Your task to perform on an android device: allow cookies in the chrome app Image 0: 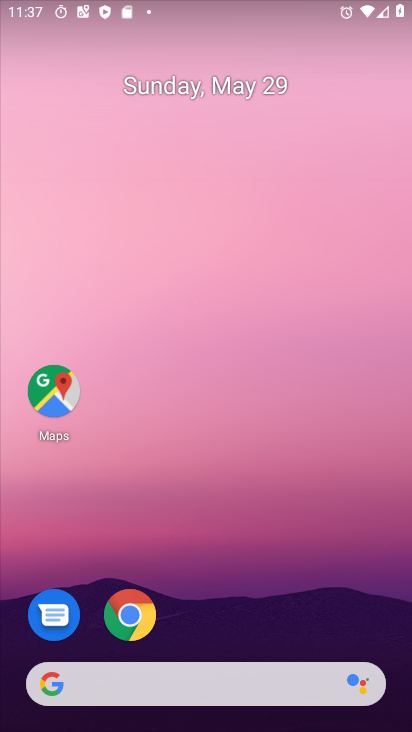
Step 0: click (128, 616)
Your task to perform on an android device: allow cookies in the chrome app Image 1: 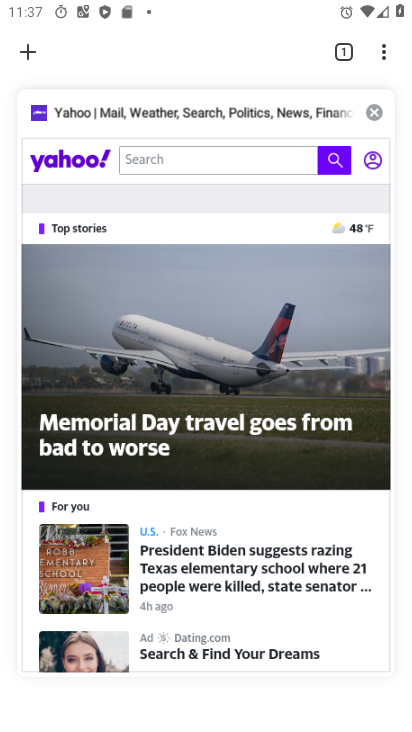
Step 1: click (380, 59)
Your task to perform on an android device: allow cookies in the chrome app Image 2: 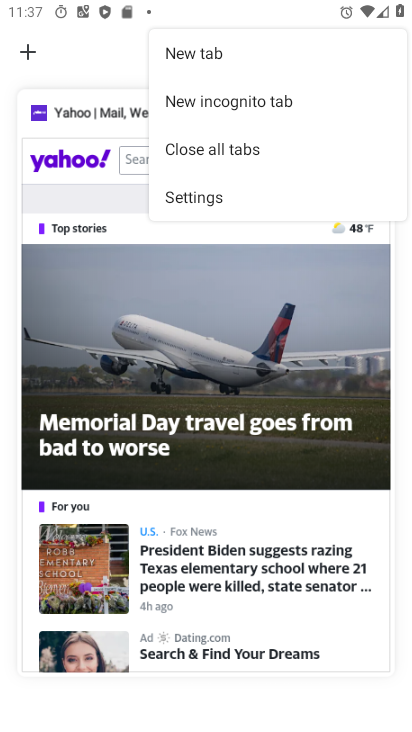
Step 2: click (230, 205)
Your task to perform on an android device: allow cookies in the chrome app Image 3: 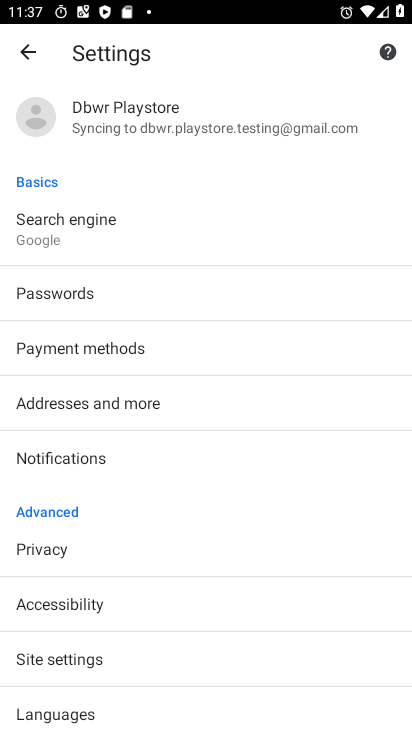
Step 3: drag from (78, 693) to (131, 397)
Your task to perform on an android device: allow cookies in the chrome app Image 4: 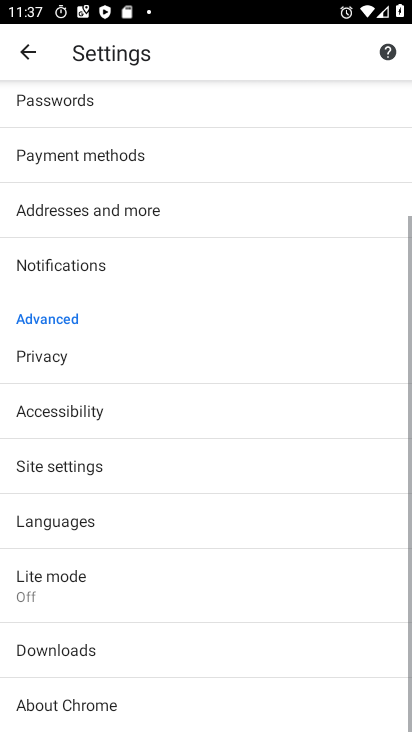
Step 4: click (78, 367)
Your task to perform on an android device: allow cookies in the chrome app Image 5: 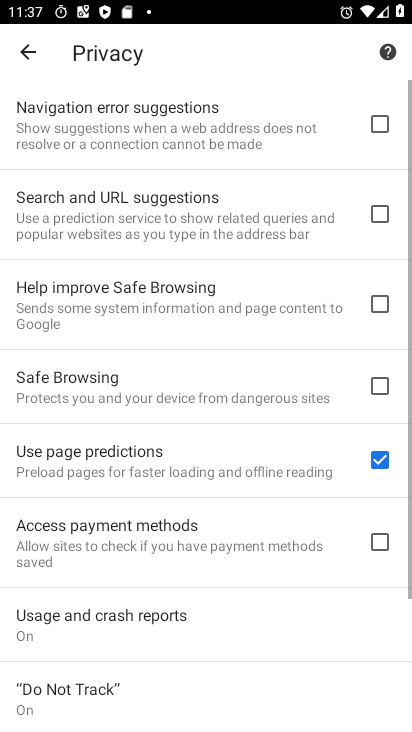
Step 5: drag from (250, 664) to (270, 149)
Your task to perform on an android device: allow cookies in the chrome app Image 6: 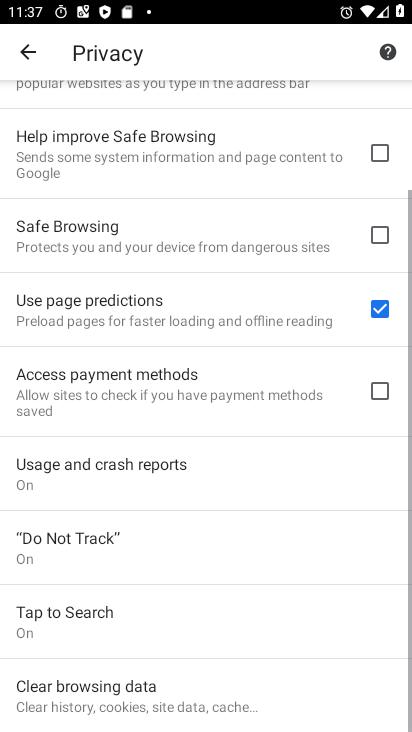
Step 6: click (105, 696)
Your task to perform on an android device: allow cookies in the chrome app Image 7: 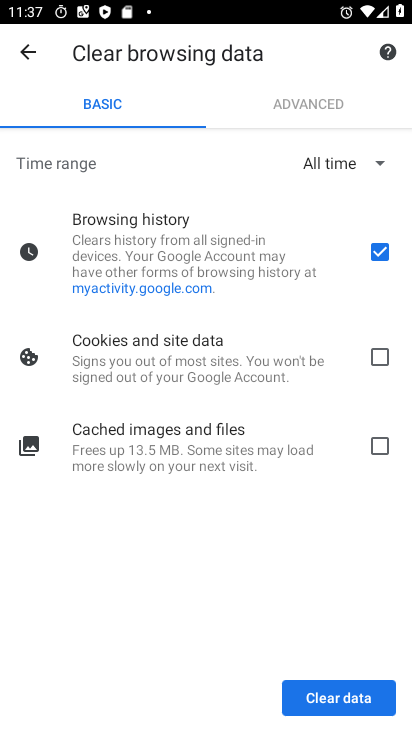
Step 7: click (382, 355)
Your task to perform on an android device: allow cookies in the chrome app Image 8: 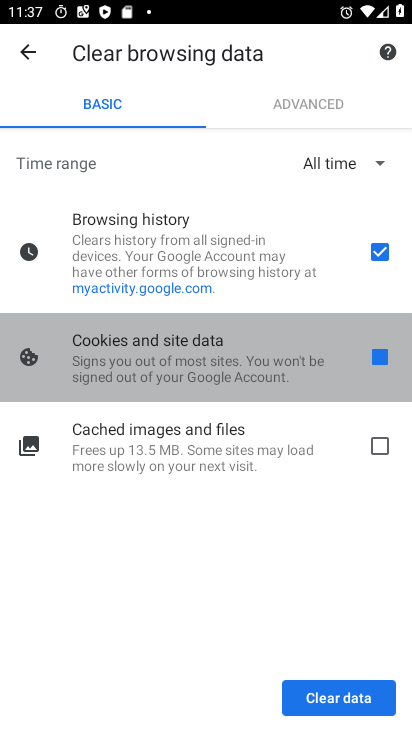
Step 8: click (374, 255)
Your task to perform on an android device: allow cookies in the chrome app Image 9: 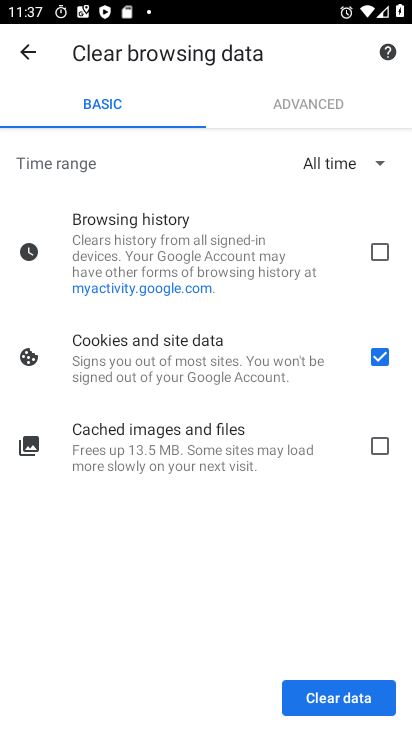
Step 9: click (344, 686)
Your task to perform on an android device: allow cookies in the chrome app Image 10: 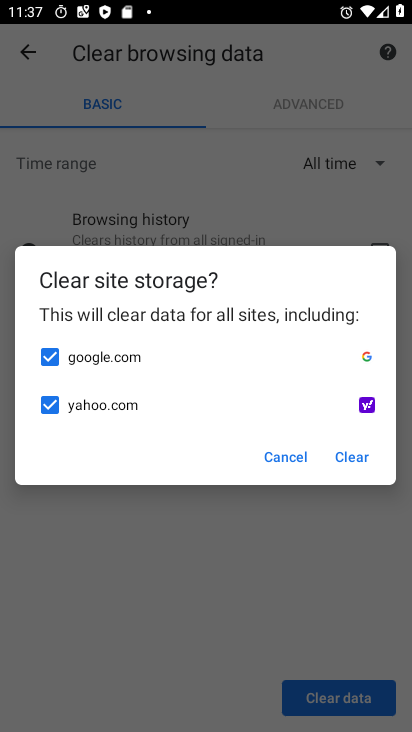
Step 10: click (339, 468)
Your task to perform on an android device: allow cookies in the chrome app Image 11: 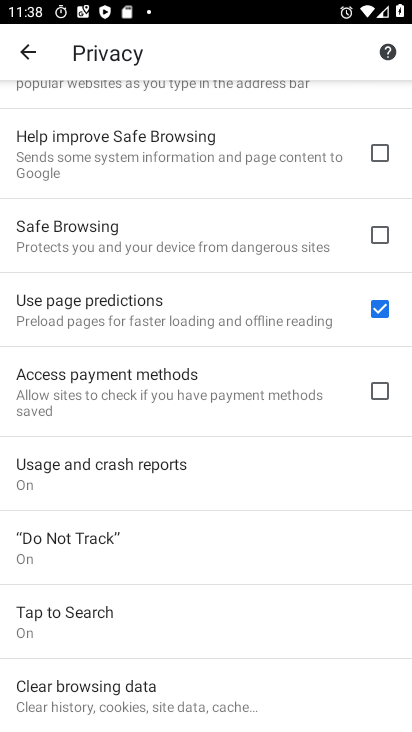
Step 11: task complete